Your task to perform on an android device: change keyboard looks Image 0: 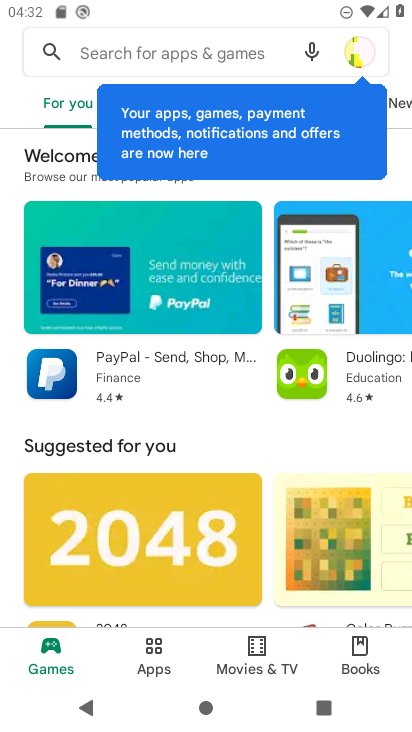
Step 0: press home button
Your task to perform on an android device: change keyboard looks Image 1: 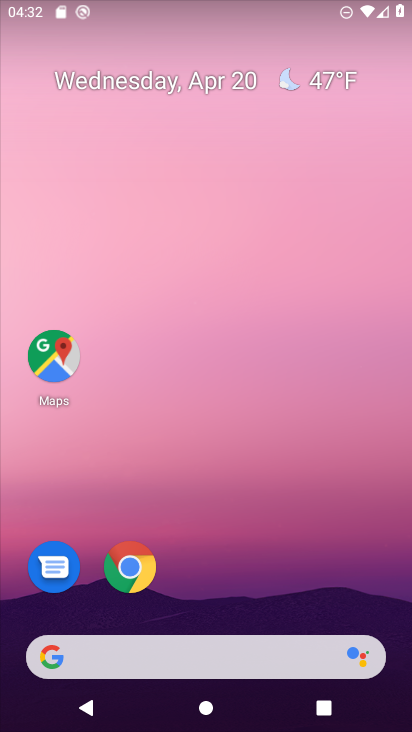
Step 1: drag from (174, 609) to (232, 78)
Your task to perform on an android device: change keyboard looks Image 2: 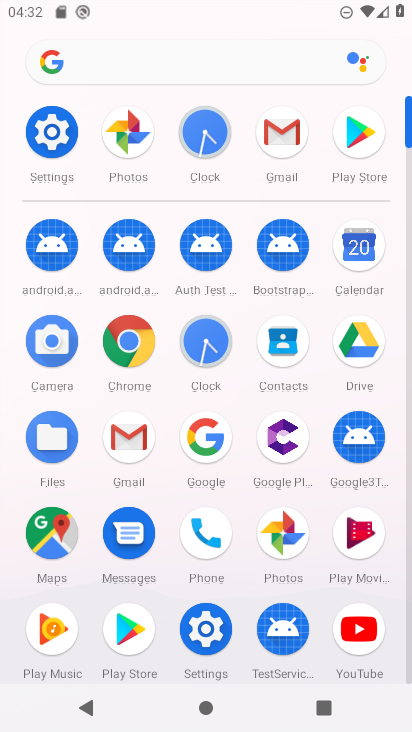
Step 2: click (187, 629)
Your task to perform on an android device: change keyboard looks Image 3: 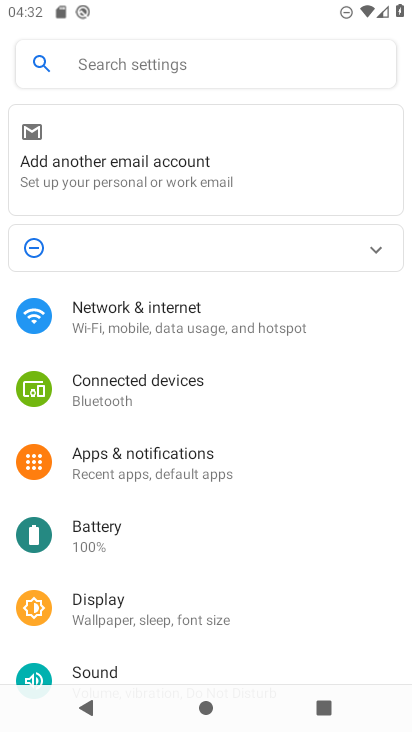
Step 3: drag from (157, 626) to (198, 268)
Your task to perform on an android device: change keyboard looks Image 4: 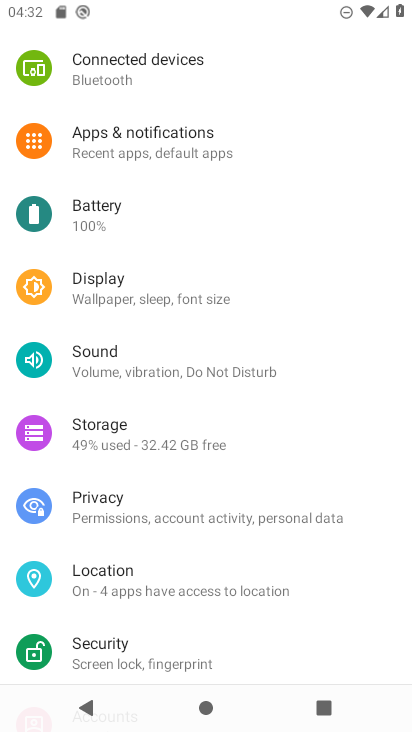
Step 4: drag from (111, 638) to (141, 145)
Your task to perform on an android device: change keyboard looks Image 5: 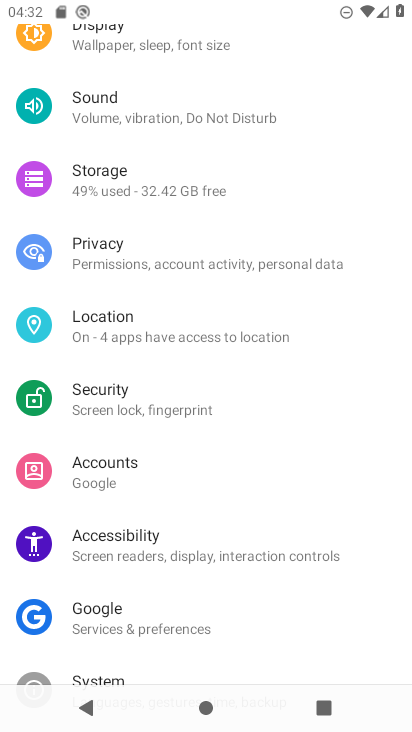
Step 5: drag from (91, 659) to (172, 109)
Your task to perform on an android device: change keyboard looks Image 6: 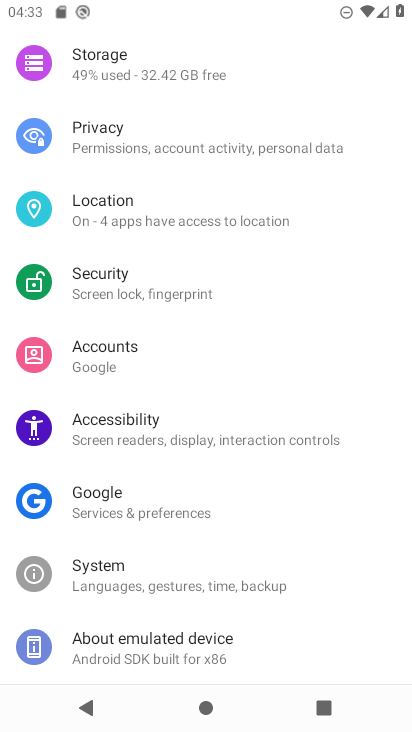
Step 6: drag from (167, 628) to (228, 210)
Your task to perform on an android device: change keyboard looks Image 7: 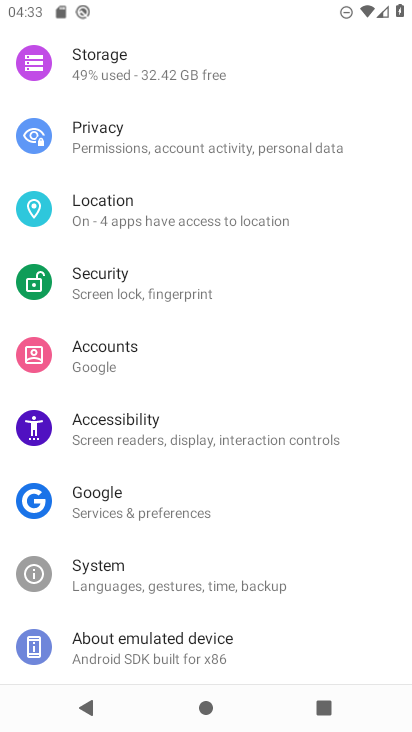
Step 7: drag from (182, 119) to (201, 588)
Your task to perform on an android device: change keyboard looks Image 8: 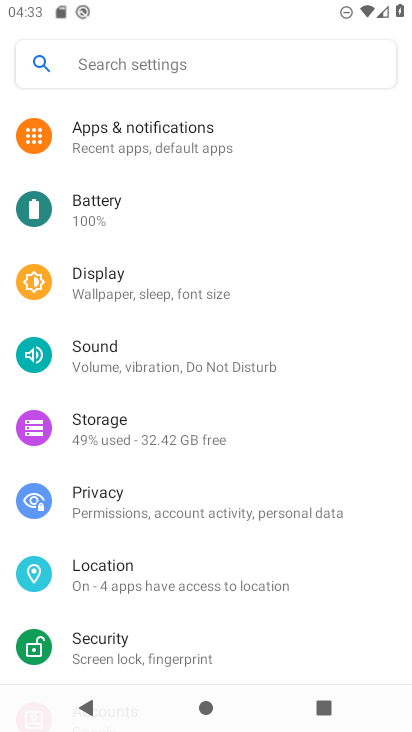
Step 8: drag from (123, 160) to (126, 621)
Your task to perform on an android device: change keyboard looks Image 9: 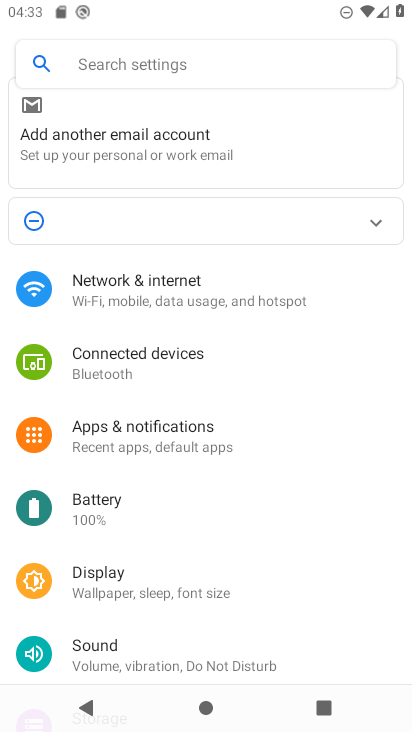
Step 9: drag from (168, 602) to (189, 170)
Your task to perform on an android device: change keyboard looks Image 10: 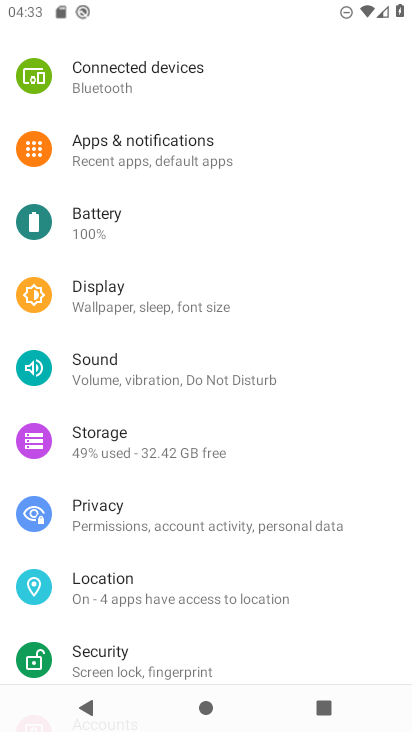
Step 10: drag from (161, 529) to (173, 136)
Your task to perform on an android device: change keyboard looks Image 11: 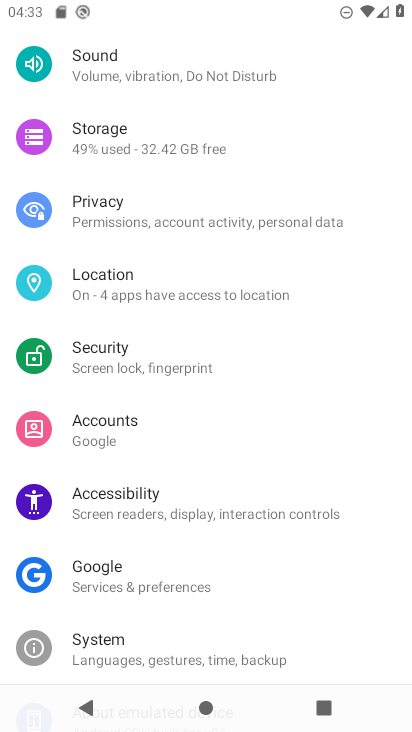
Step 11: click (91, 640)
Your task to perform on an android device: change keyboard looks Image 12: 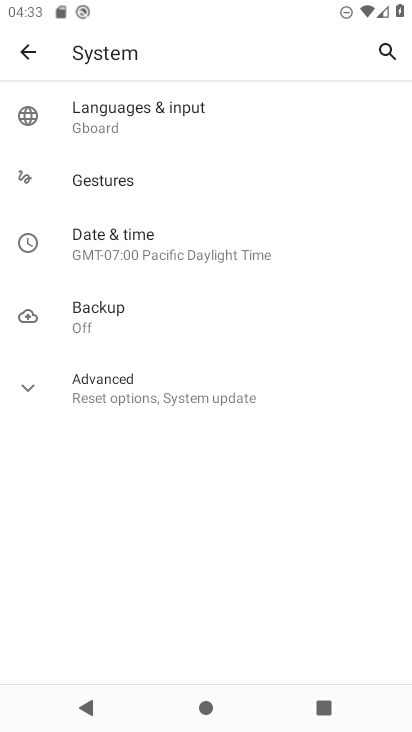
Step 12: click (193, 384)
Your task to perform on an android device: change keyboard looks Image 13: 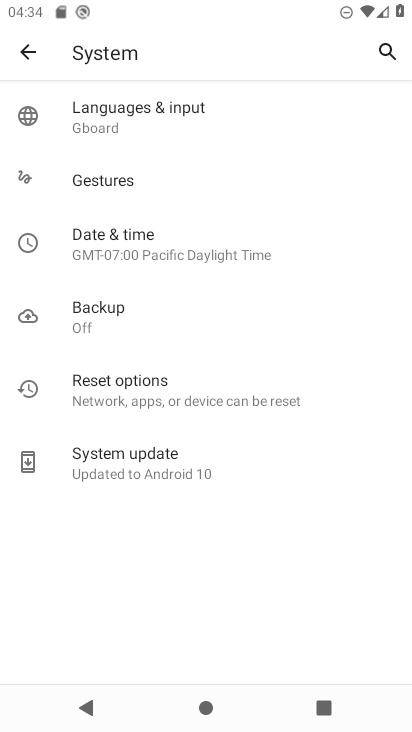
Step 13: click (159, 131)
Your task to perform on an android device: change keyboard looks Image 14: 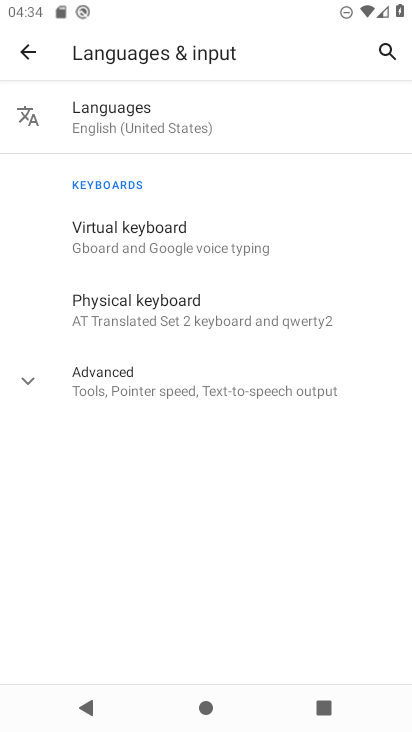
Step 14: click (141, 242)
Your task to perform on an android device: change keyboard looks Image 15: 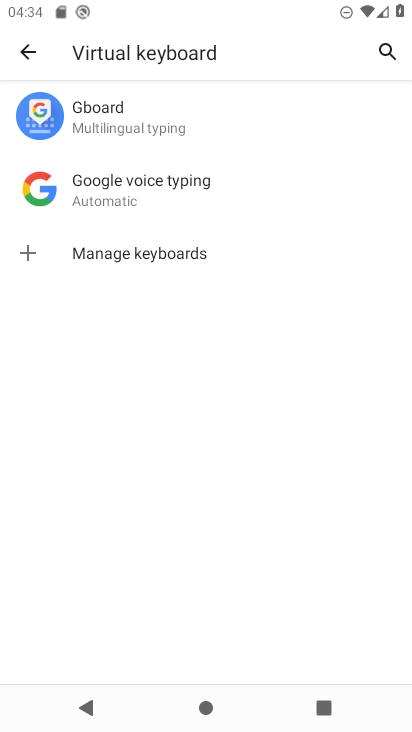
Step 15: click (151, 130)
Your task to perform on an android device: change keyboard looks Image 16: 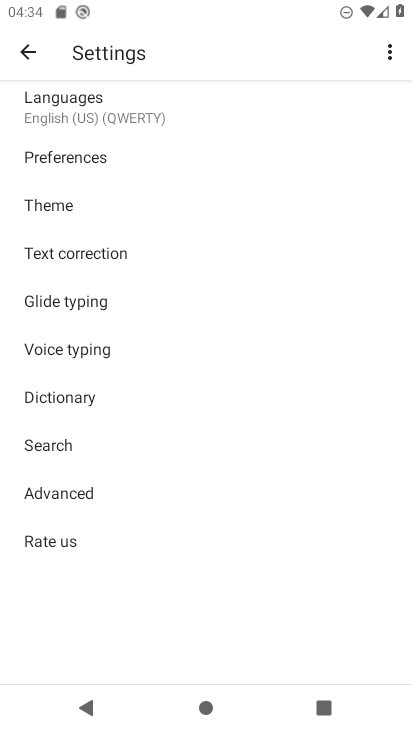
Step 16: click (95, 208)
Your task to perform on an android device: change keyboard looks Image 17: 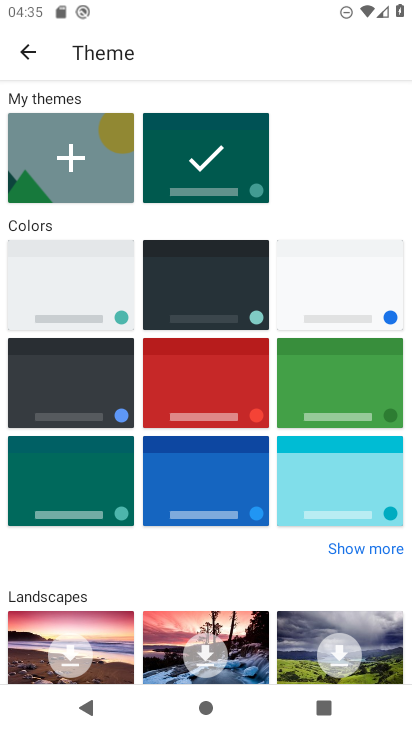
Step 17: click (369, 473)
Your task to perform on an android device: change keyboard looks Image 18: 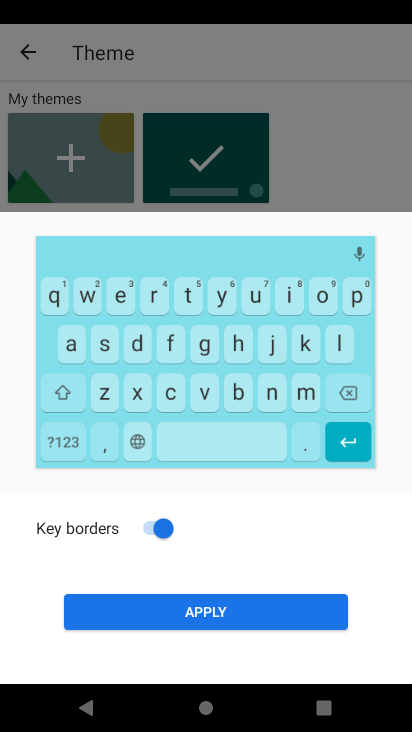
Step 18: click (212, 605)
Your task to perform on an android device: change keyboard looks Image 19: 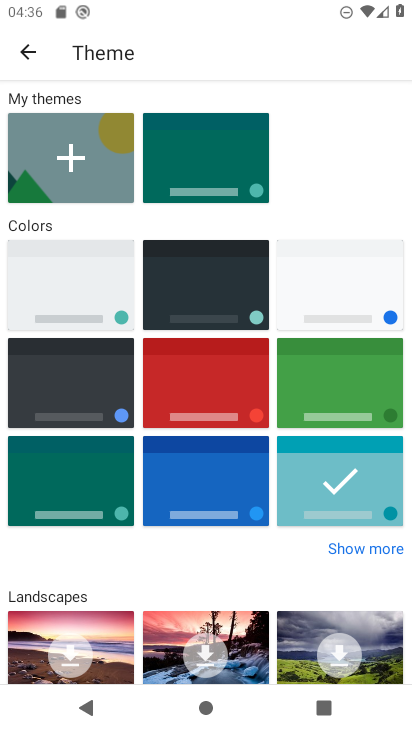
Step 19: click (237, 625)
Your task to perform on an android device: change keyboard looks Image 20: 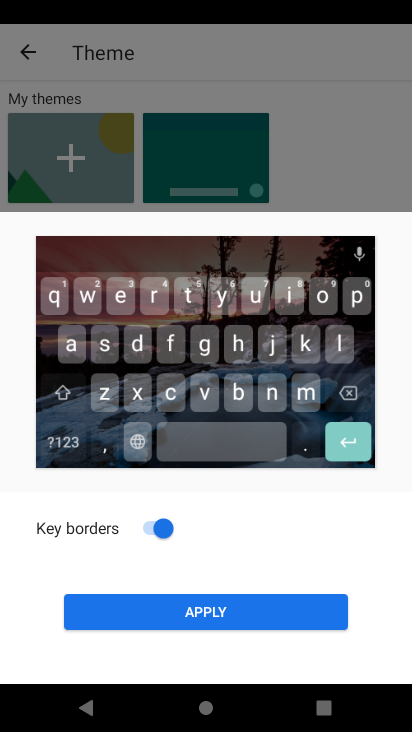
Step 20: click (229, 618)
Your task to perform on an android device: change keyboard looks Image 21: 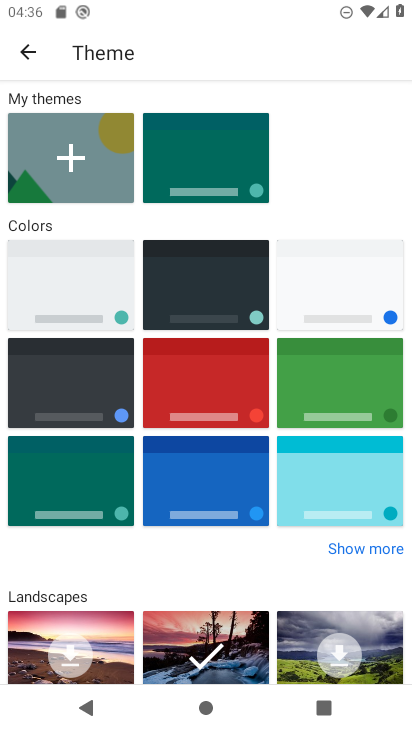
Step 21: task complete